Your task to perform on an android device: Go to Google maps Image 0: 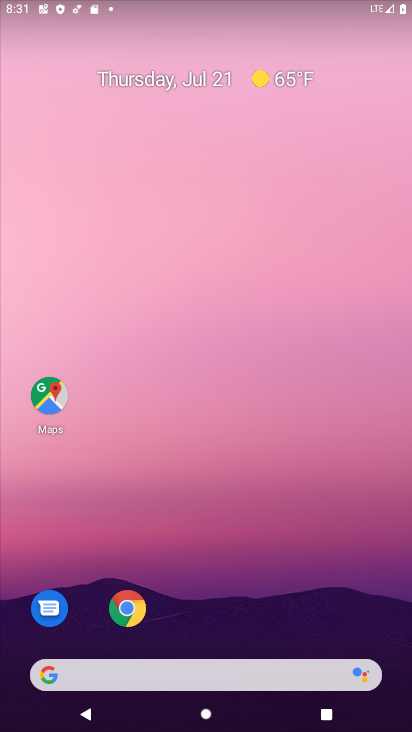
Step 0: click (46, 398)
Your task to perform on an android device: Go to Google maps Image 1: 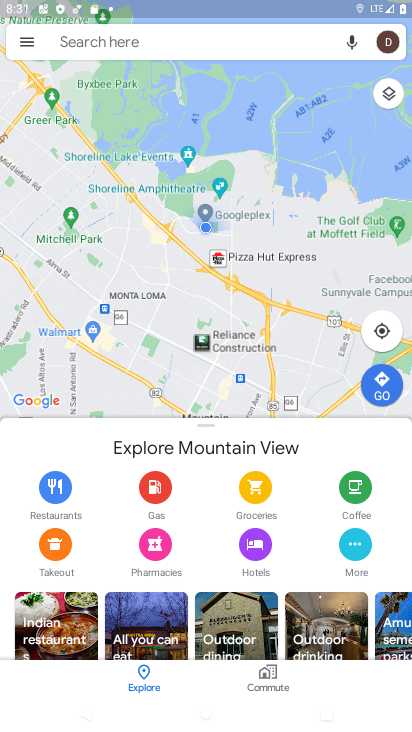
Step 1: task complete